Your task to perform on an android device: Is it going to rain tomorrow? Image 0: 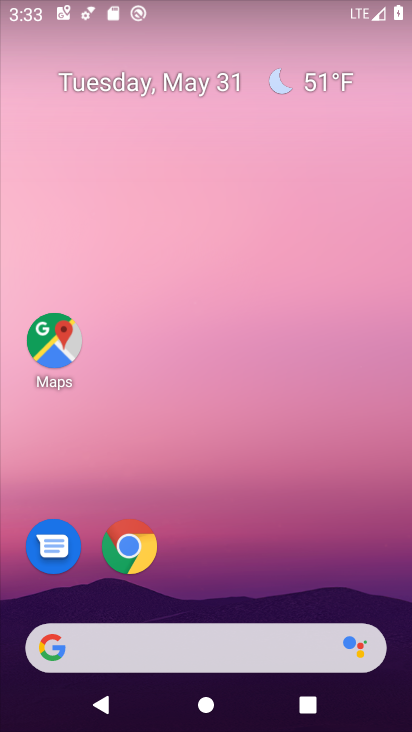
Step 0: click (195, 73)
Your task to perform on an android device: Is it going to rain tomorrow? Image 1: 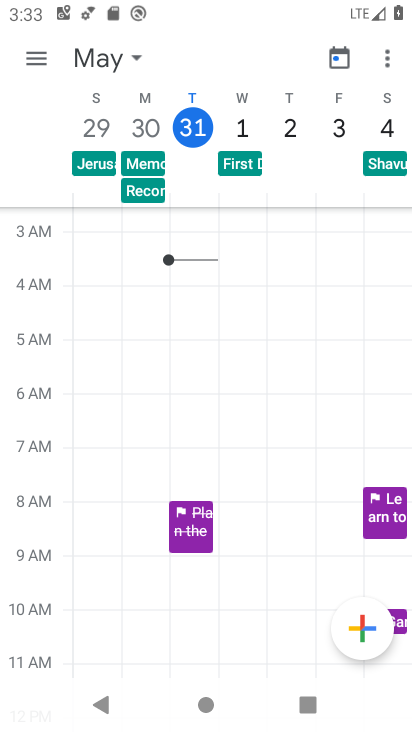
Step 1: press back button
Your task to perform on an android device: Is it going to rain tomorrow? Image 2: 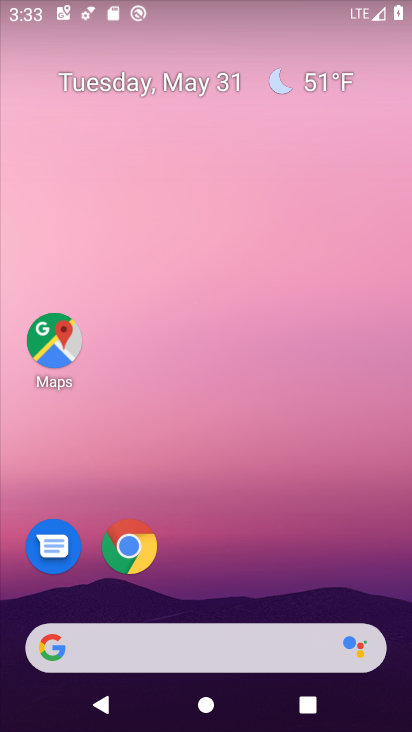
Step 2: click (331, 77)
Your task to perform on an android device: Is it going to rain tomorrow? Image 3: 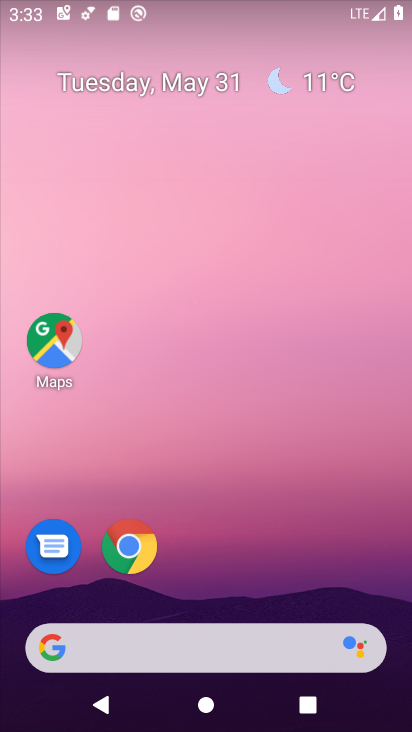
Step 3: click (321, 84)
Your task to perform on an android device: Is it going to rain tomorrow? Image 4: 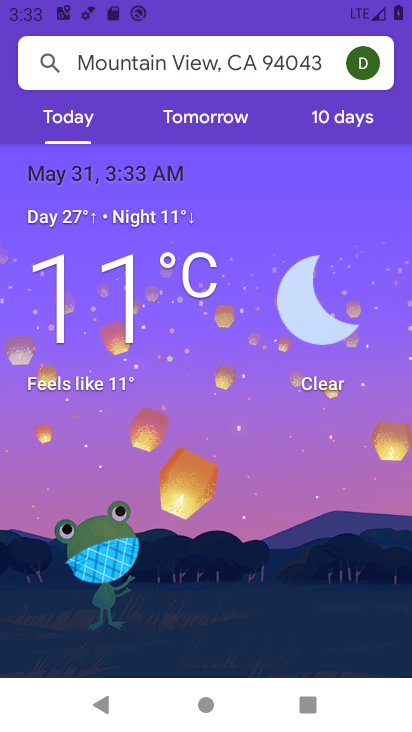
Step 4: click (225, 114)
Your task to perform on an android device: Is it going to rain tomorrow? Image 5: 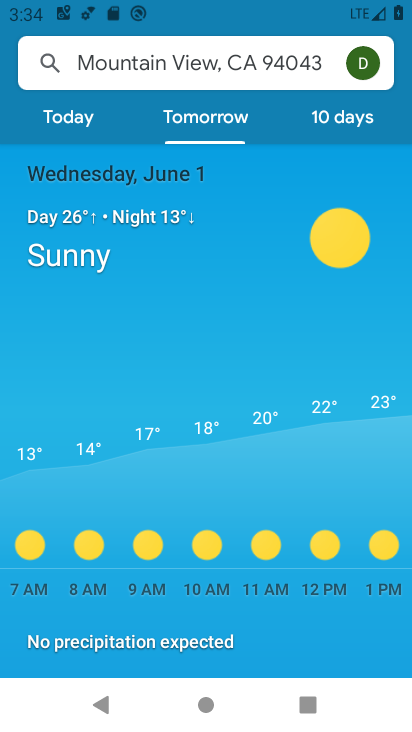
Step 5: task complete